Your task to perform on an android device: check google app version Image 0: 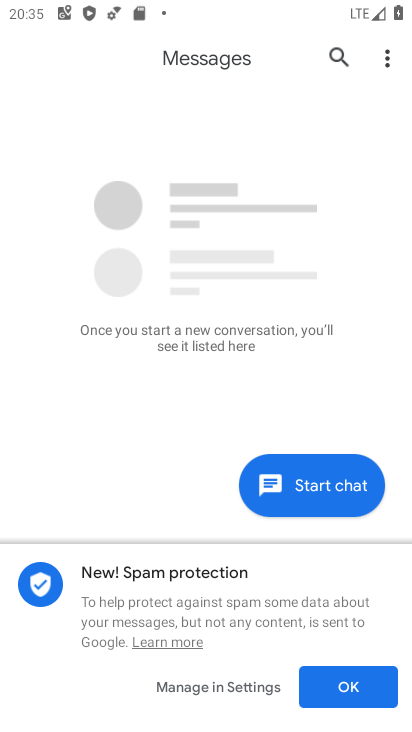
Step 0: press back button
Your task to perform on an android device: check google app version Image 1: 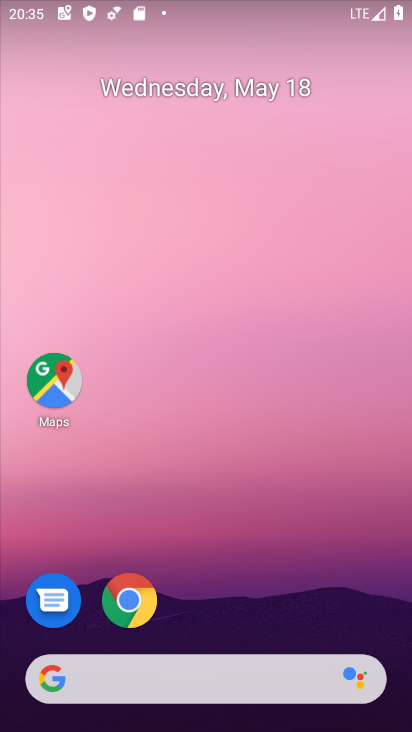
Step 1: drag from (256, 565) to (331, 5)
Your task to perform on an android device: check google app version Image 2: 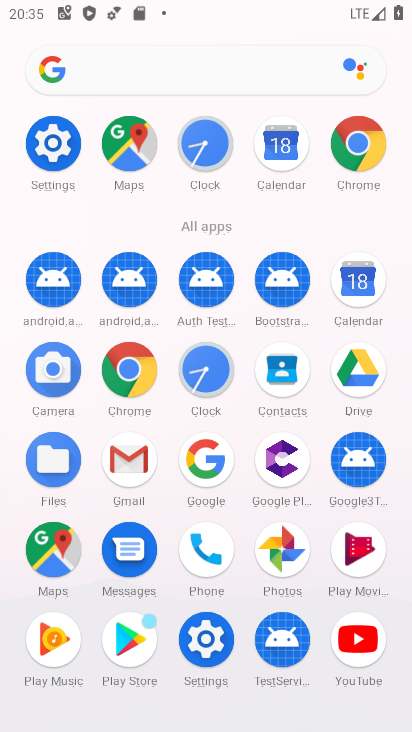
Step 2: click (205, 466)
Your task to perform on an android device: check google app version Image 3: 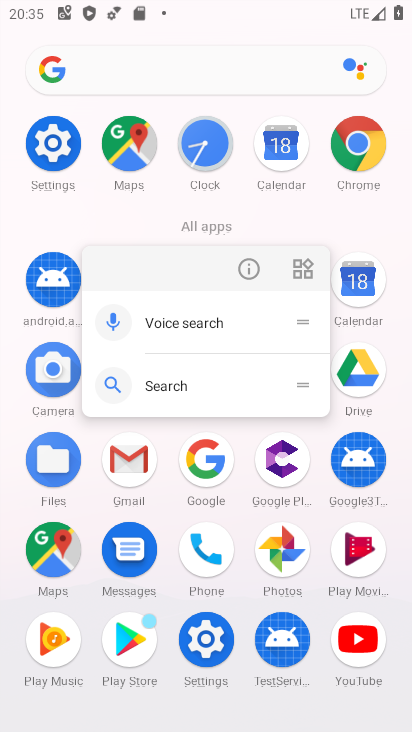
Step 3: click (256, 264)
Your task to perform on an android device: check google app version Image 4: 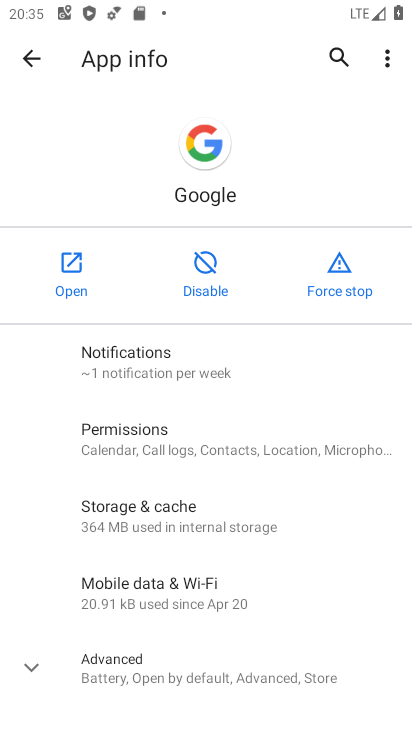
Step 4: drag from (228, 676) to (328, 6)
Your task to perform on an android device: check google app version Image 5: 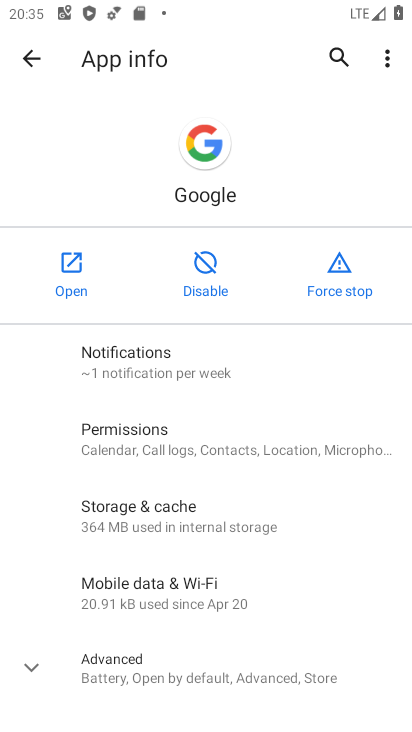
Step 5: drag from (174, 644) to (259, 209)
Your task to perform on an android device: check google app version Image 6: 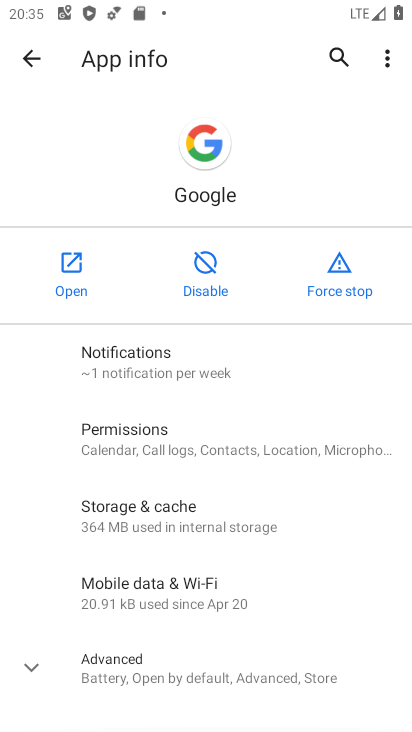
Step 6: click (109, 674)
Your task to perform on an android device: check google app version Image 7: 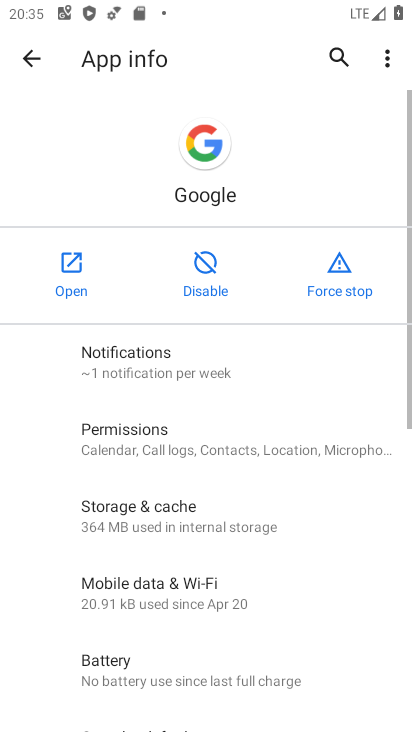
Step 7: task complete